Your task to perform on an android device: change the clock style Image 0: 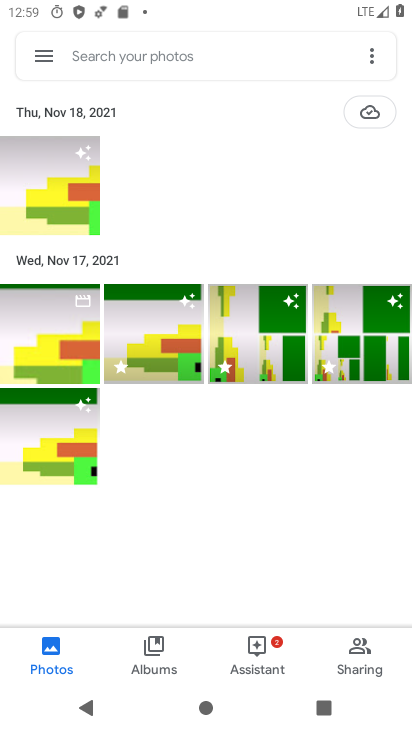
Step 0: press home button
Your task to perform on an android device: change the clock style Image 1: 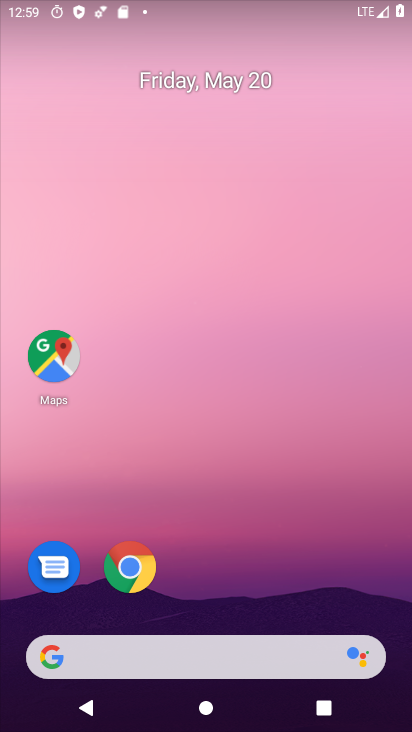
Step 1: drag from (269, 591) to (308, 105)
Your task to perform on an android device: change the clock style Image 2: 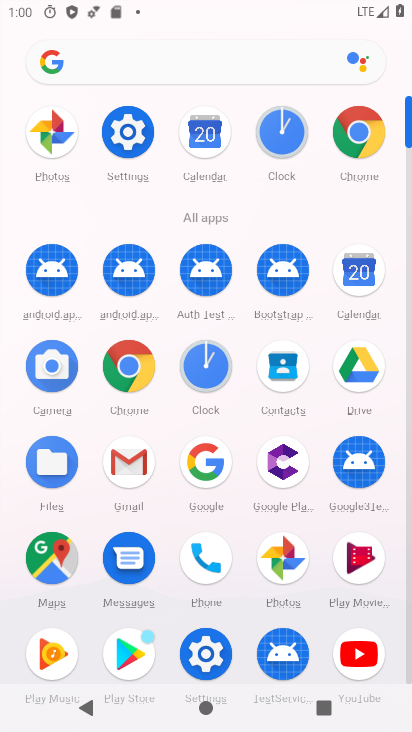
Step 2: click (274, 132)
Your task to perform on an android device: change the clock style Image 3: 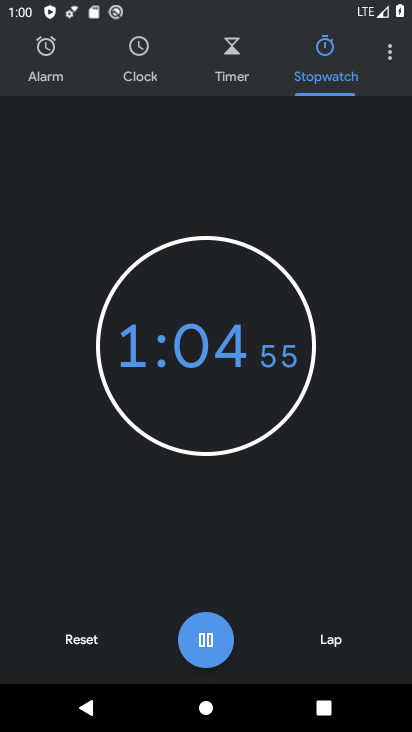
Step 3: click (388, 63)
Your task to perform on an android device: change the clock style Image 4: 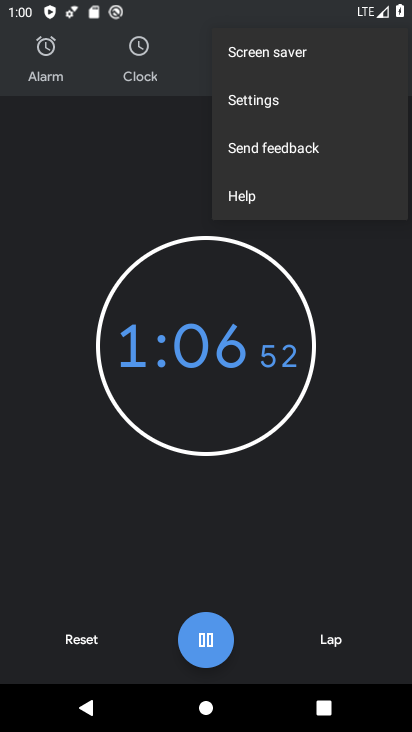
Step 4: click (355, 98)
Your task to perform on an android device: change the clock style Image 5: 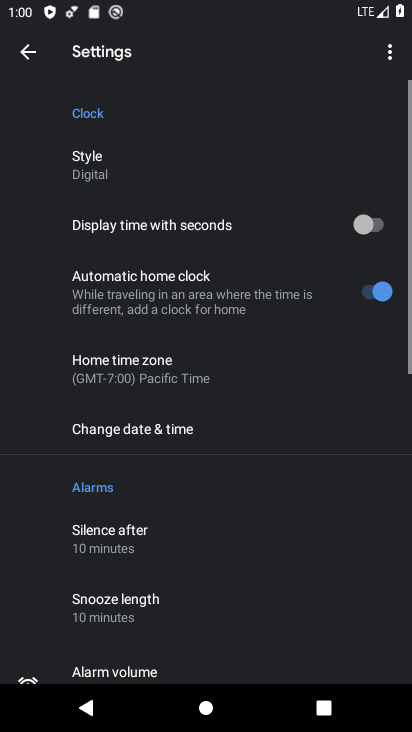
Step 5: click (206, 177)
Your task to perform on an android device: change the clock style Image 6: 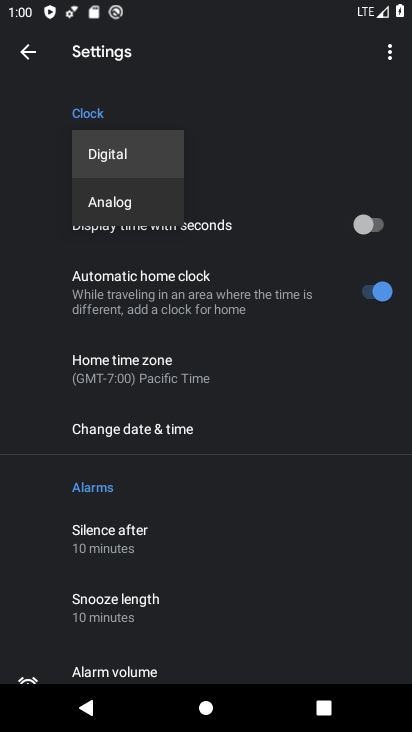
Step 6: click (178, 204)
Your task to perform on an android device: change the clock style Image 7: 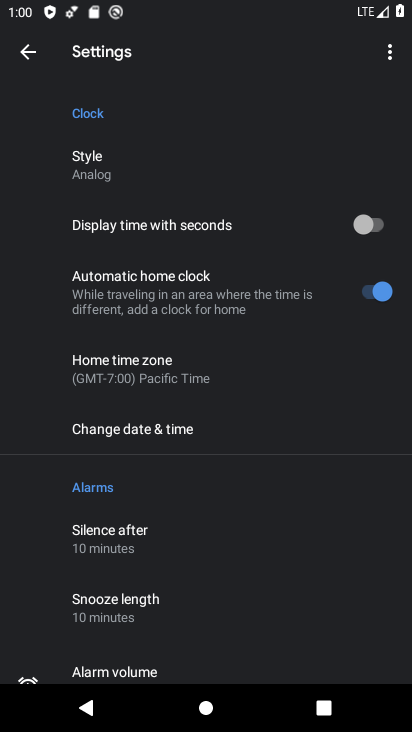
Step 7: task complete